Your task to perform on an android device: Open eBay Image 0: 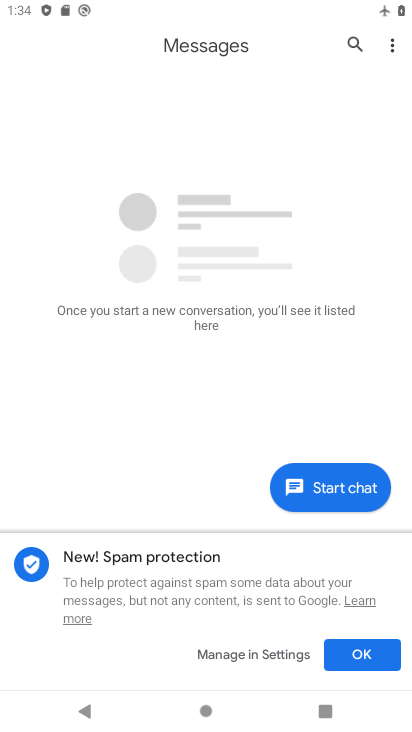
Step 0: press back button
Your task to perform on an android device: Open eBay Image 1: 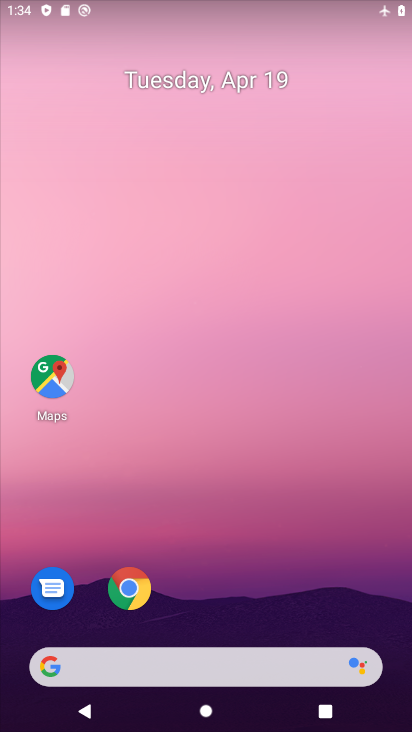
Step 1: click (135, 616)
Your task to perform on an android device: Open eBay Image 2: 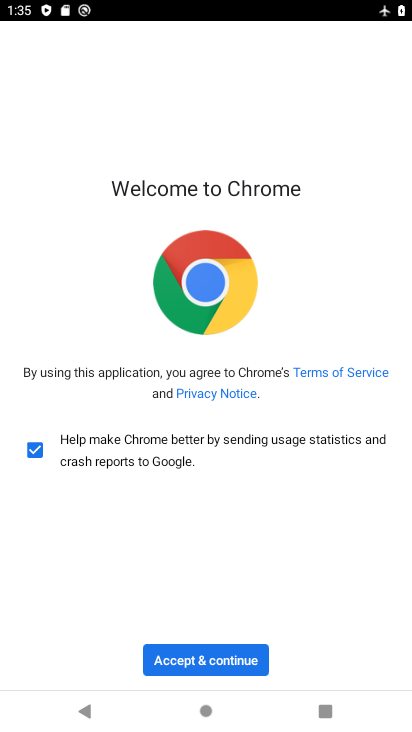
Step 2: click (209, 657)
Your task to perform on an android device: Open eBay Image 3: 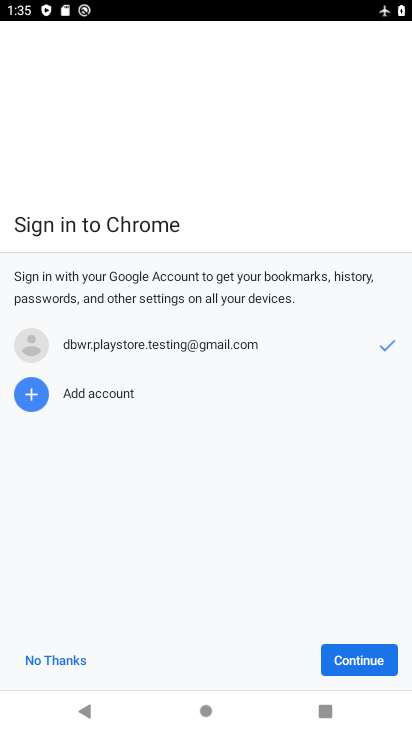
Step 3: click (349, 662)
Your task to perform on an android device: Open eBay Image 4: 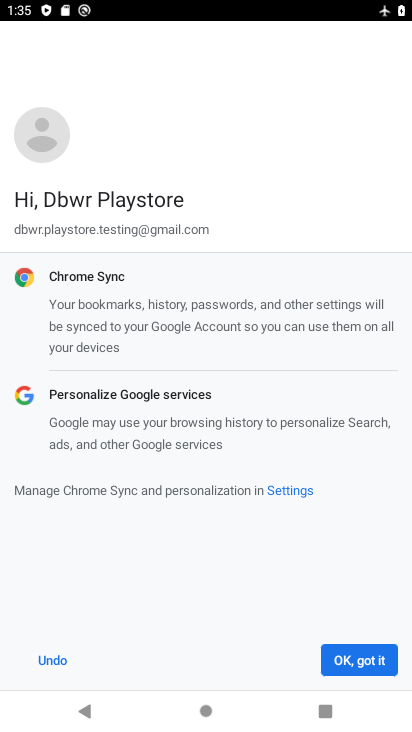
Step 4: click (339, 664)
Your task to perform on an android device: Open eBay Image 5: 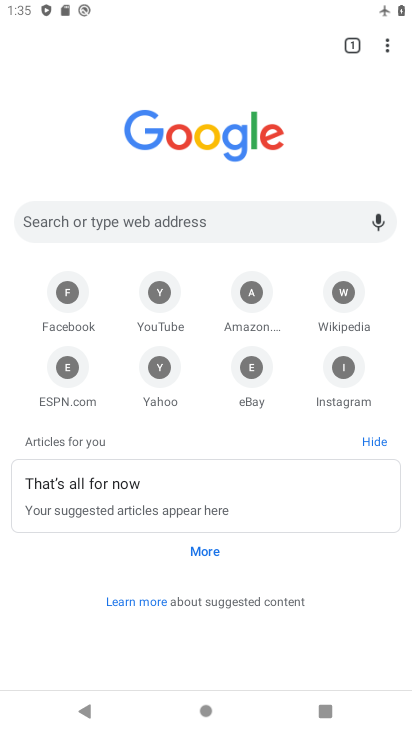
Step 5: click (249, 371)
Your task to perform on an android device: Open eBay Image 6: 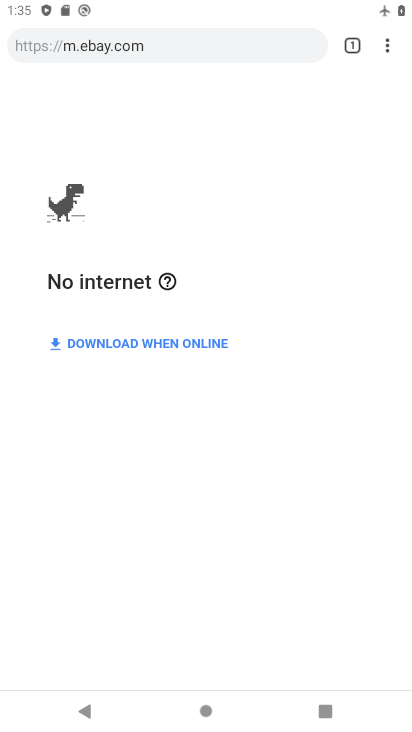
Step 6: task complete